Your task to perform on an android device: Open calendar and show me the third week of next month Image 0: 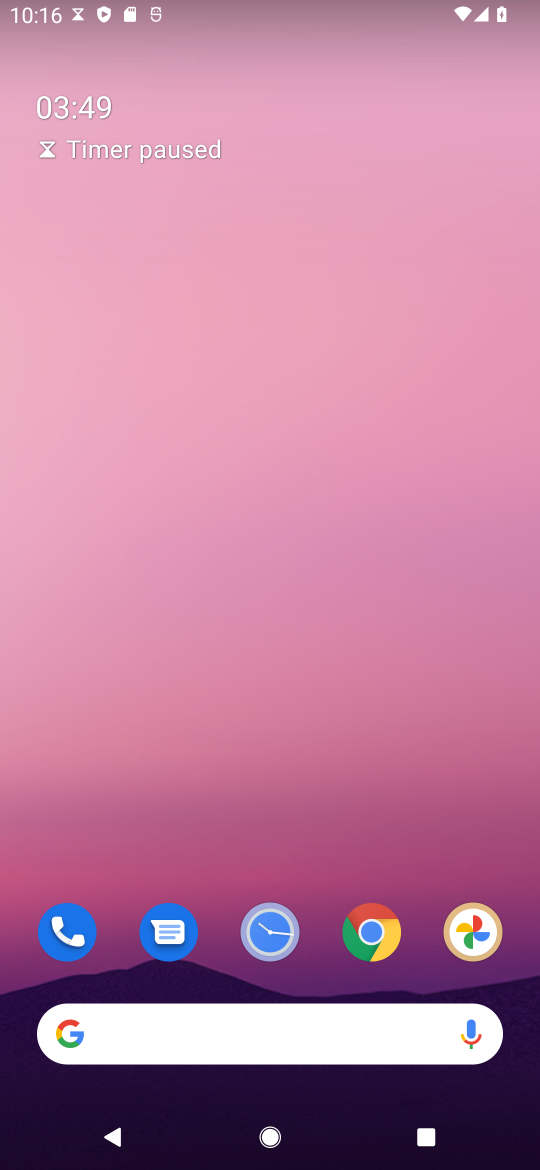
Step 0: drag from (306, 1032) to (275, 132)
Your task to perform on an android device: Open calendar and show me the third week of next month Image 1: 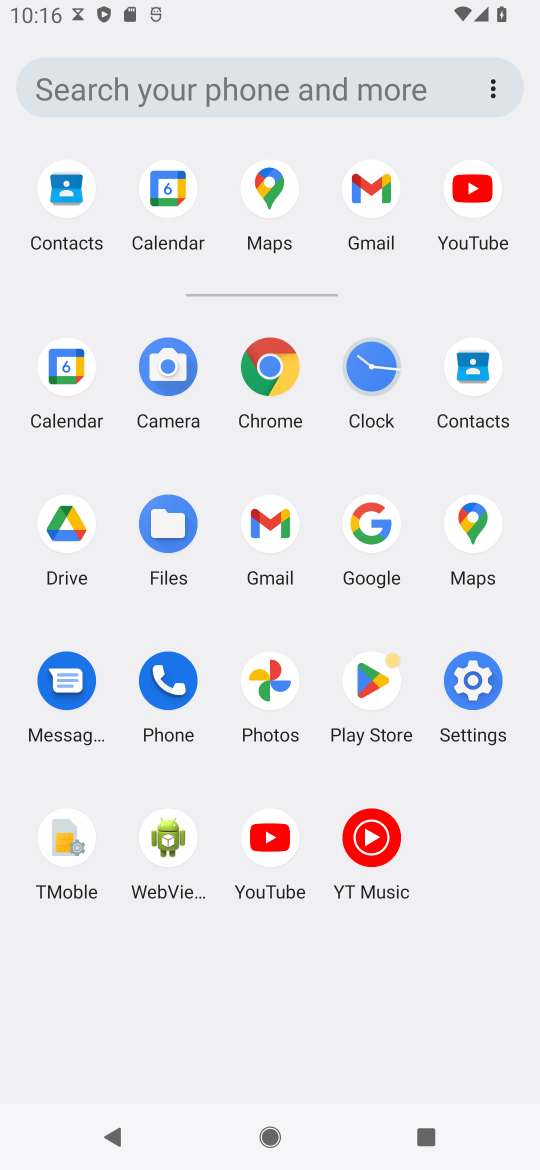
Step 1: click (66, 368)
Your task to perform on an android device: Open calendar and show me the third week of next month Image 2: 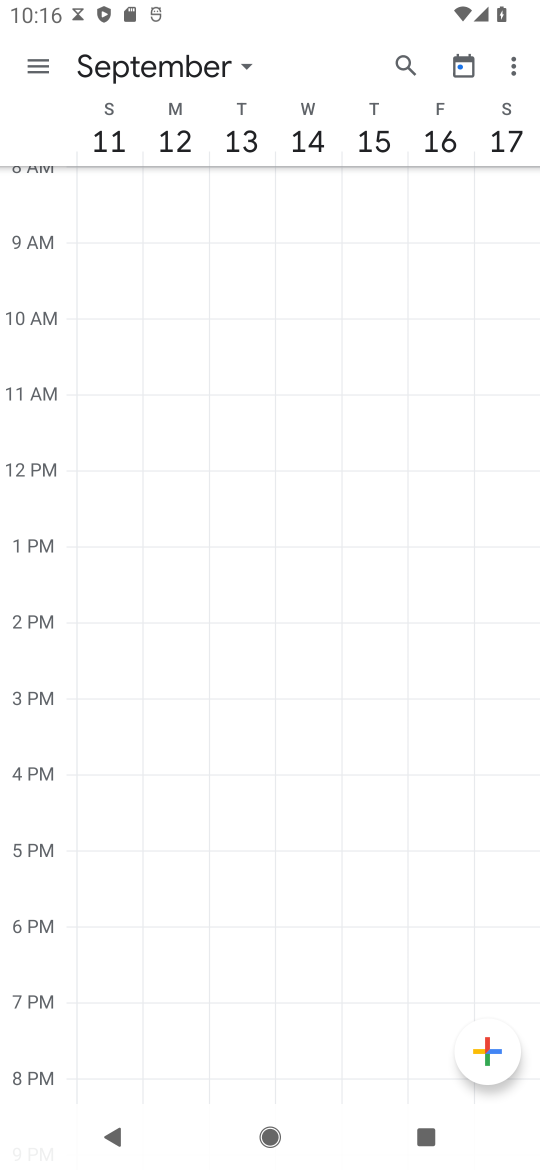
Step 2: click (467, 67)
Your task to perform on an android device: Open calendar and show me the third week of next month Image 3: 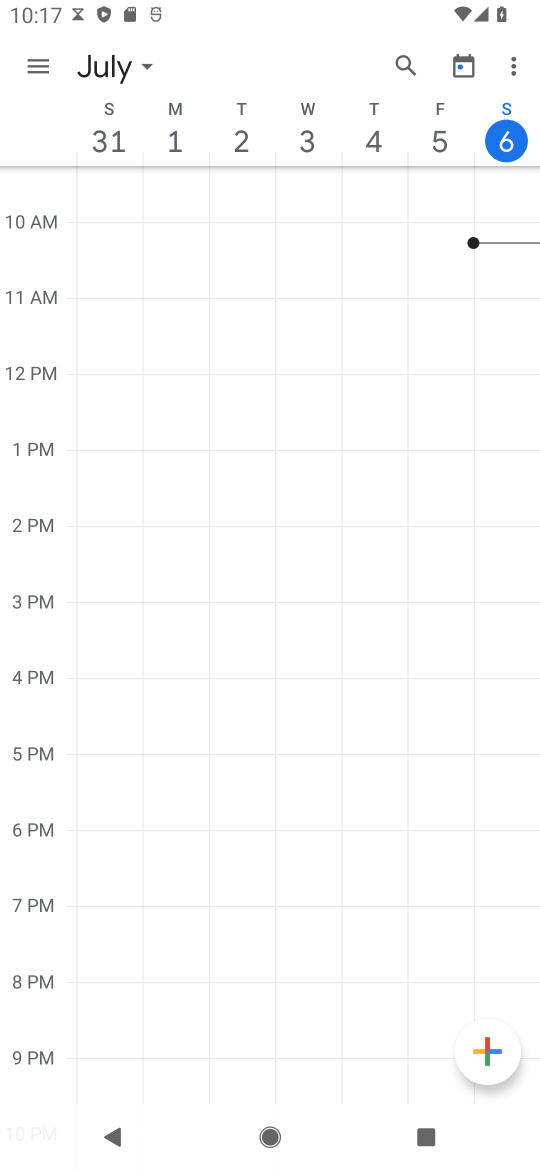
Step 3: click (148, 67)
Your task to perform on an android device: Open calendar and show me the third week of next month Image 4: 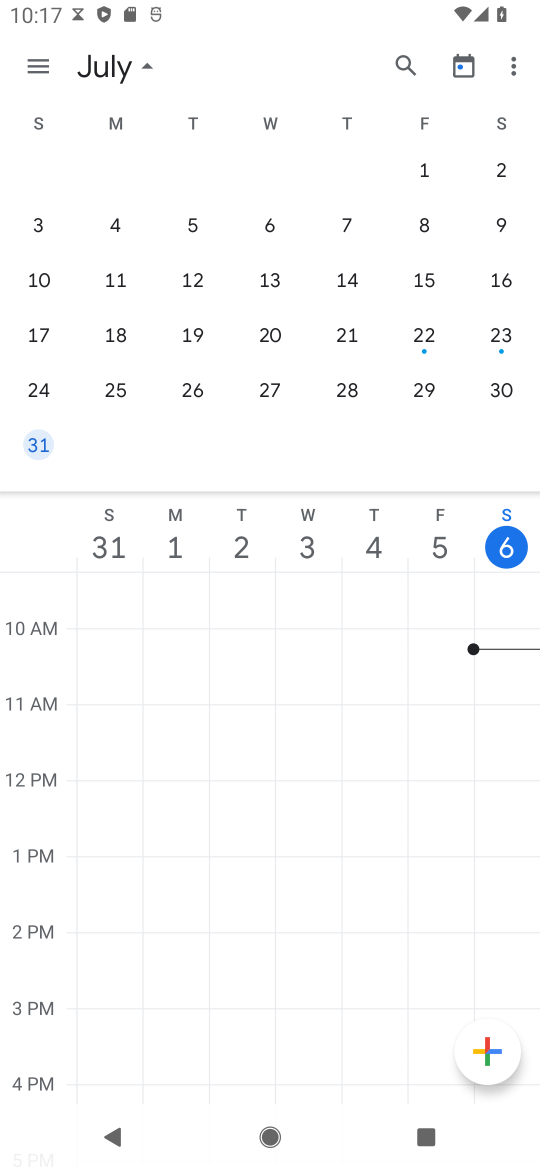
Step 4: drag from (516, 314) to (5, 382)
Your task to perform on an android device: Open calendar and show me the third week of next month Image 5: 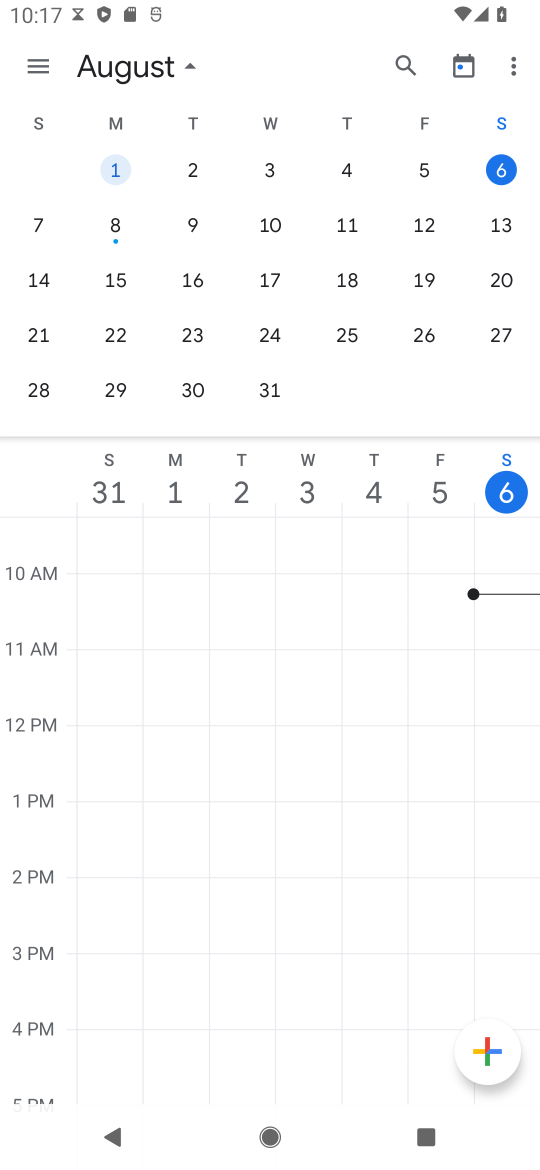
Step 5: drag from (491, 288) to (9, 312)
Your task to perform on an android device: Open calendar and show me the third week of next month Image 6: 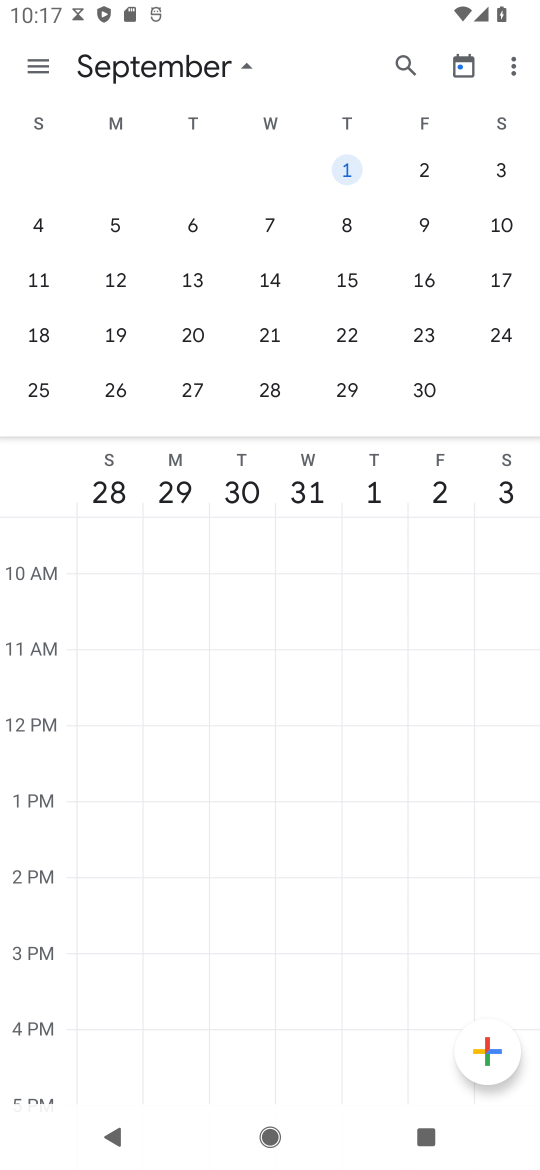
Step 6: click (130, 334)
Your task to perform on an android device: Open calendar and show me the third week of next month Image 7: 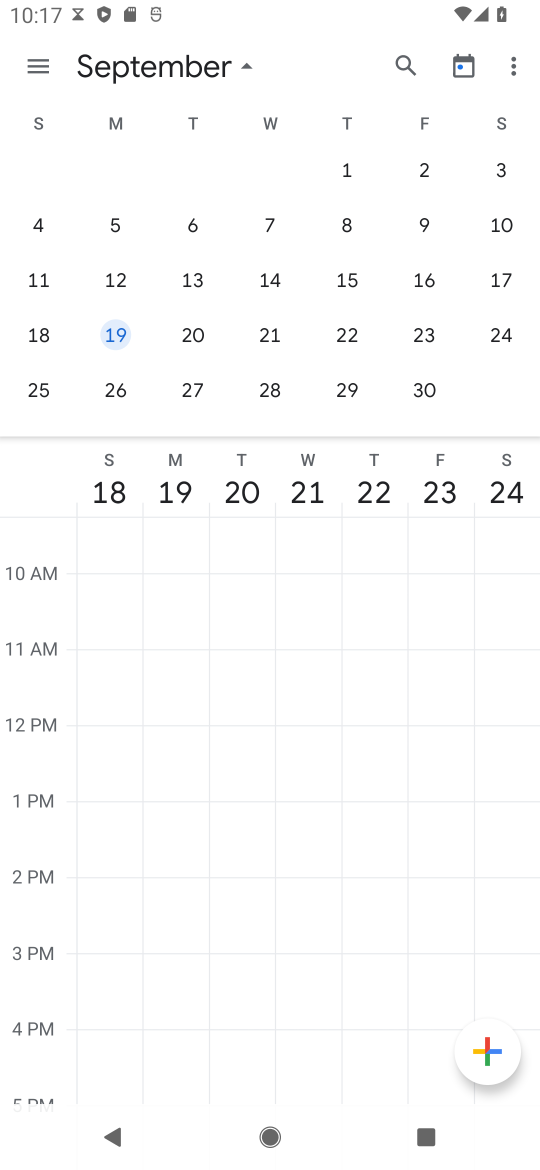
Step 7: click (50, 76)
Your task to perform on an android device: Open calendar and show me the third week of next month Image 8: 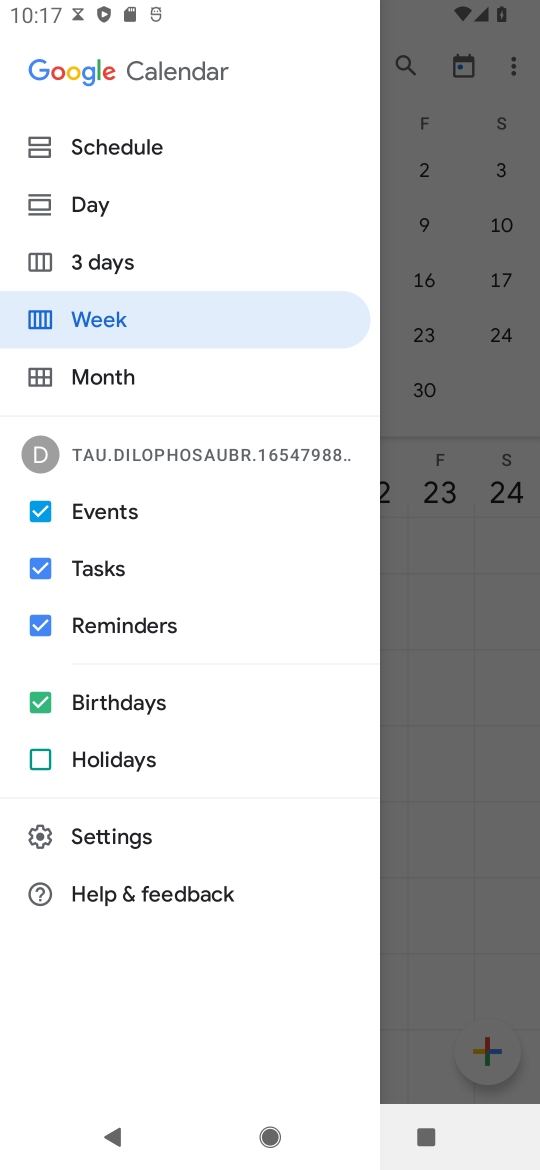
Step 8: click (99, 310)
Your task to perform on an android device: Open calendar and show me the third week of next month Image 9: 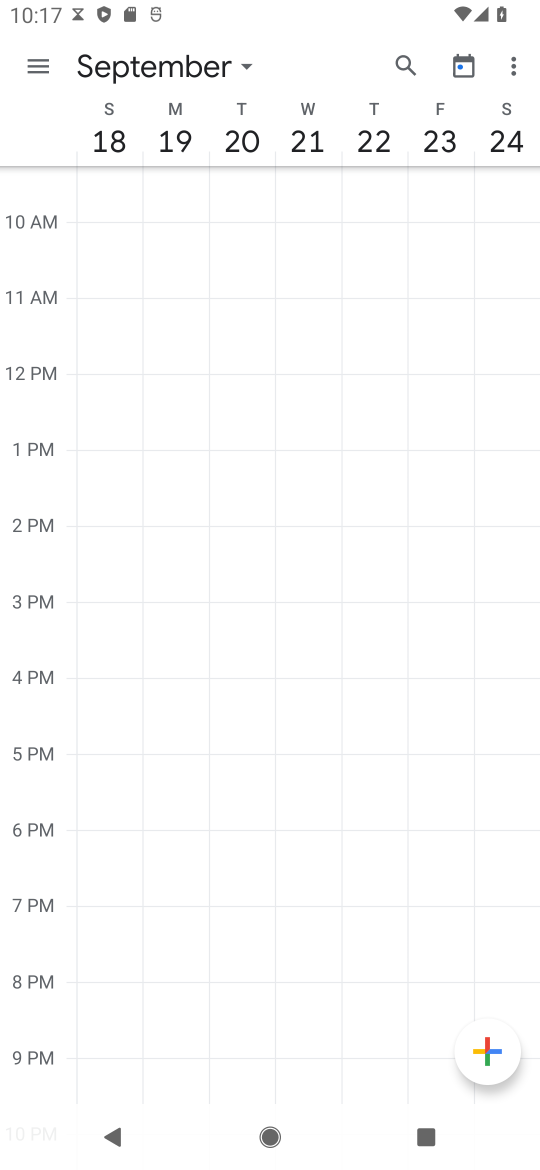
Step 9: task complete